Your task to perform on an android device: Go to internet settings Image 0: 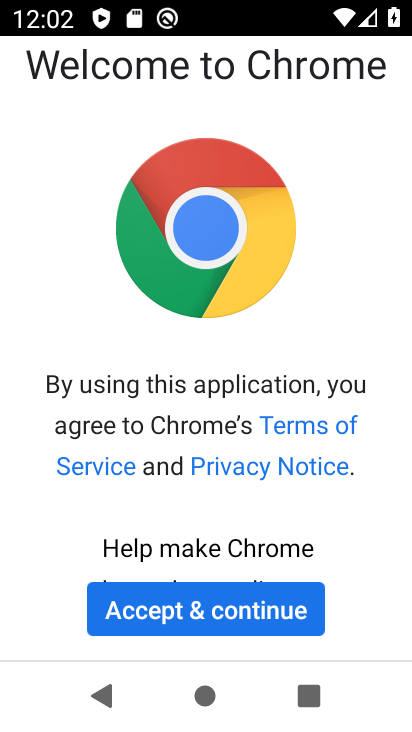
Step 0: press home button
Your task to perform on an android device: Go to internet settings Image 1: 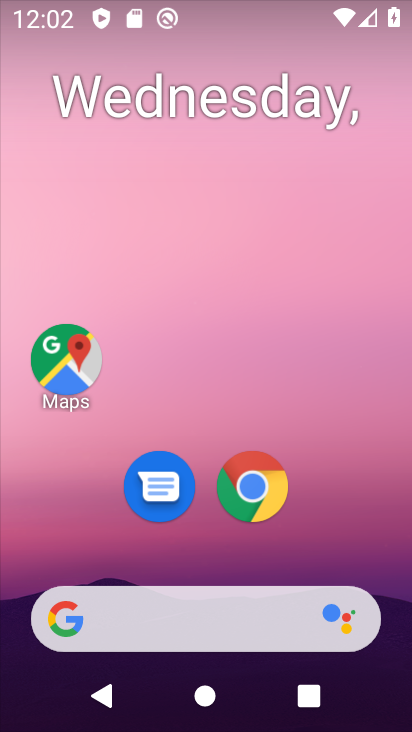
Step 1: drag from (330, 407) to (301, 84)
Your task to perform on an android device: Go to internet settings Image 2: 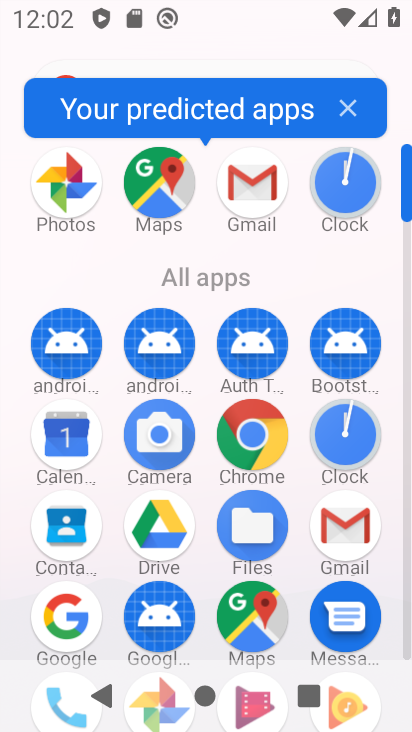
Step 2: drag from (198, 532) to (234, 155)
Your task to perform on an android device: Go to internet settings Image 3: 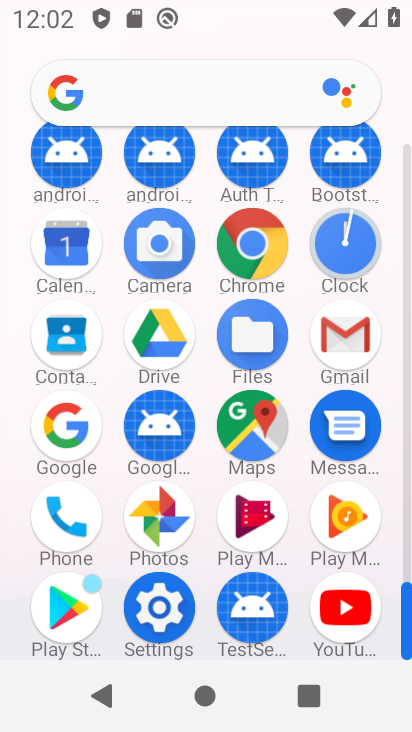
Step 3: click (145, 626)
Your task to perform on an android device: Go to internet settings Image 4: 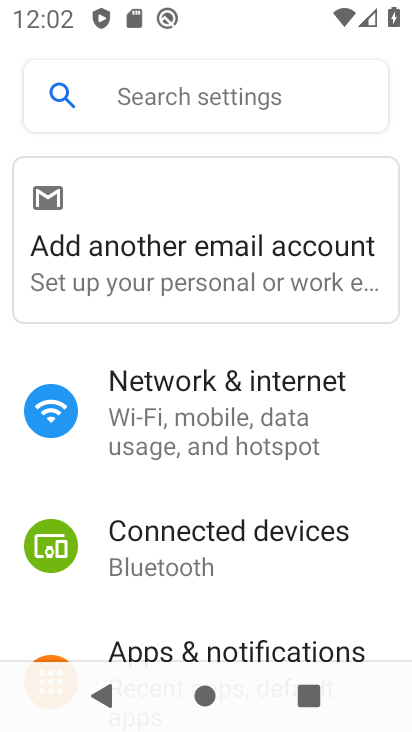
Step 4: click (169, 391)
Your task to perform on an android device: Go to internet settings Image 5: 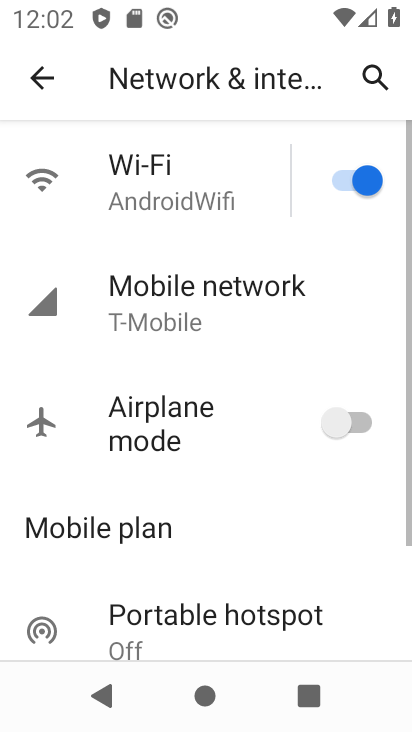
Step 5: task complete